Your task to perform on an android device: Open my contact list Image 0: 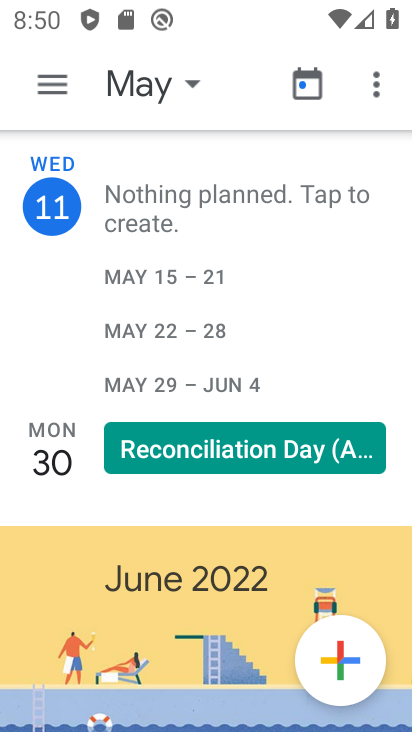
Step 0: press home button
Your task to perform on an android device: Open my contact list Image 1: 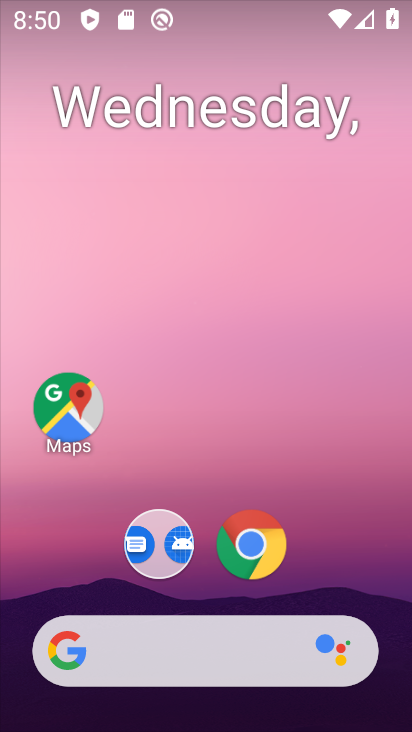
Step 1: drag from (185, 602) to (198, 61)
Your task to perform on an android device: Open my contact list Image 2: 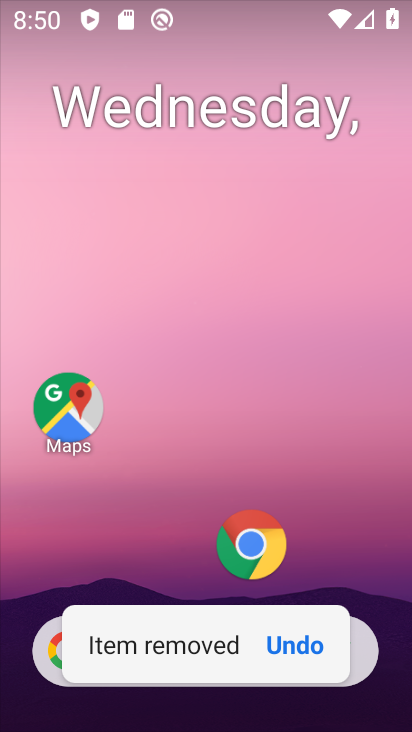
Step 2: drag from (168, 578) to (157, 25)
Your task to perform on an android device: Open my contact list Image 3: 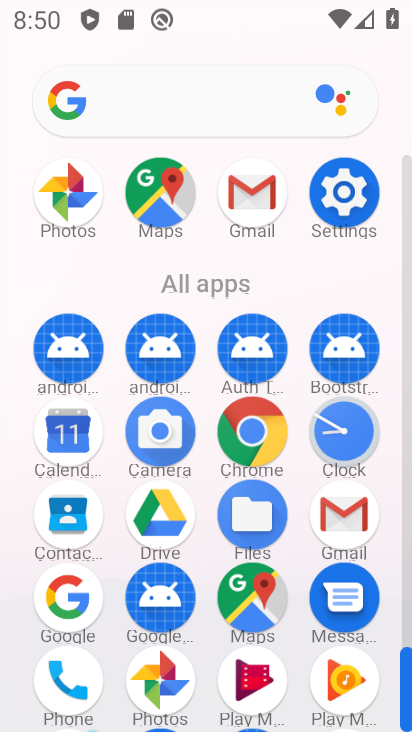
Step 3: click (85, 704)
Your task to perform on an android device: Open my contact list Image 4: 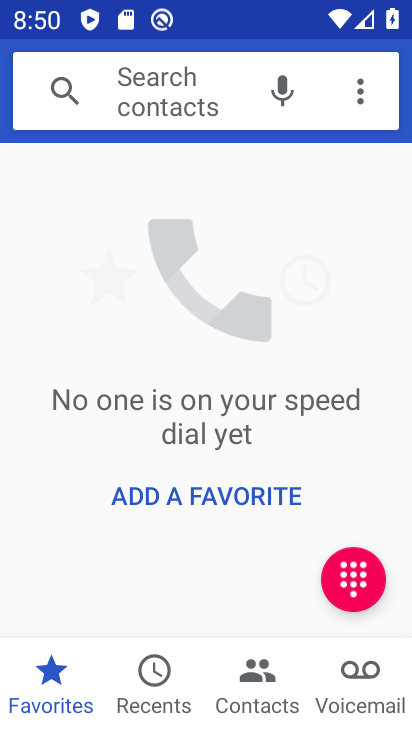
Step 4: click (258, 691)
Your task to perform on an android device: Open my contact list Image 5: 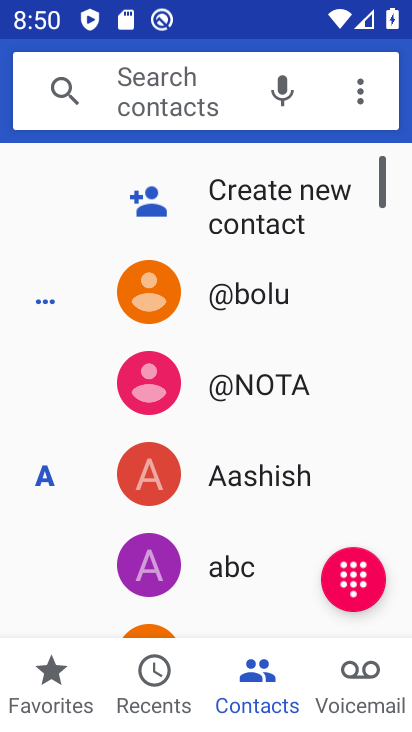
Step 5: task complete